Your task to perform on an android device: change the clock display to analog Image 0: 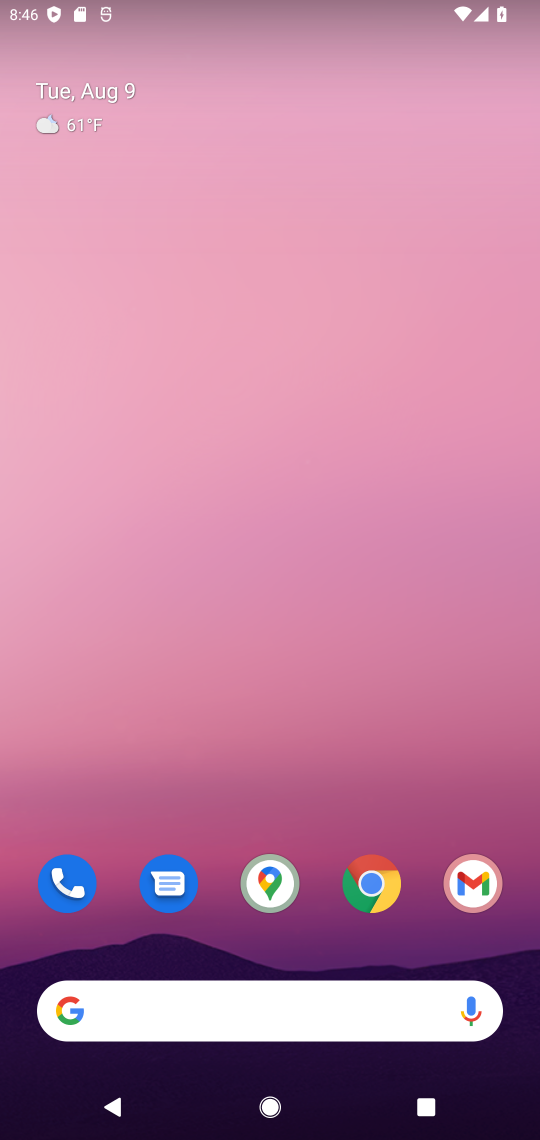
Step 0: drag from (368, 769) to (422, 0)
Your task to perform on an android device: change the clock display to analog Image 1: 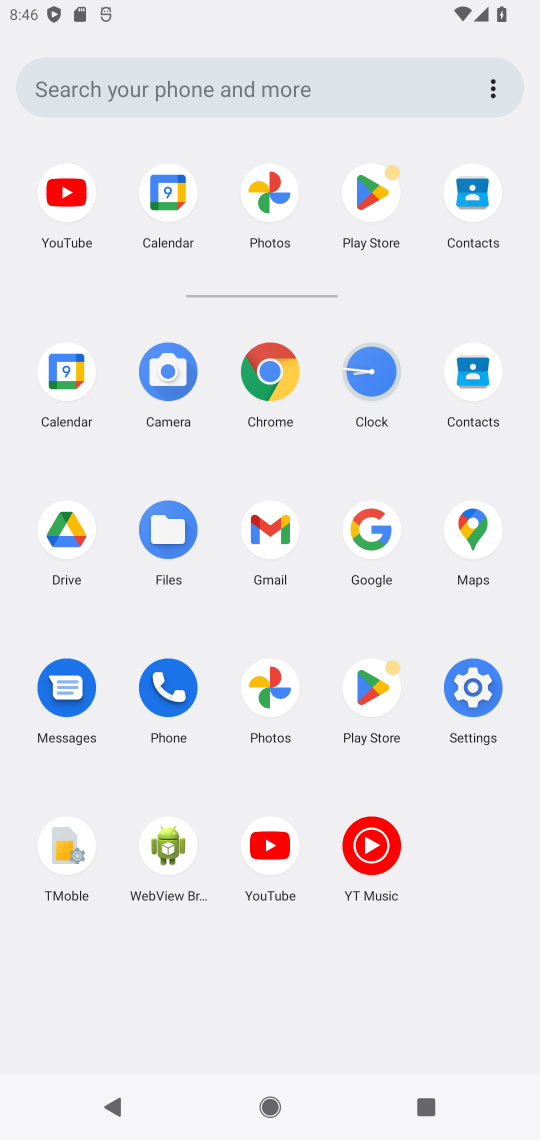
Step 1: click (367, 378)
Your task to perform on an android device: change the clock display to analog Image 2: 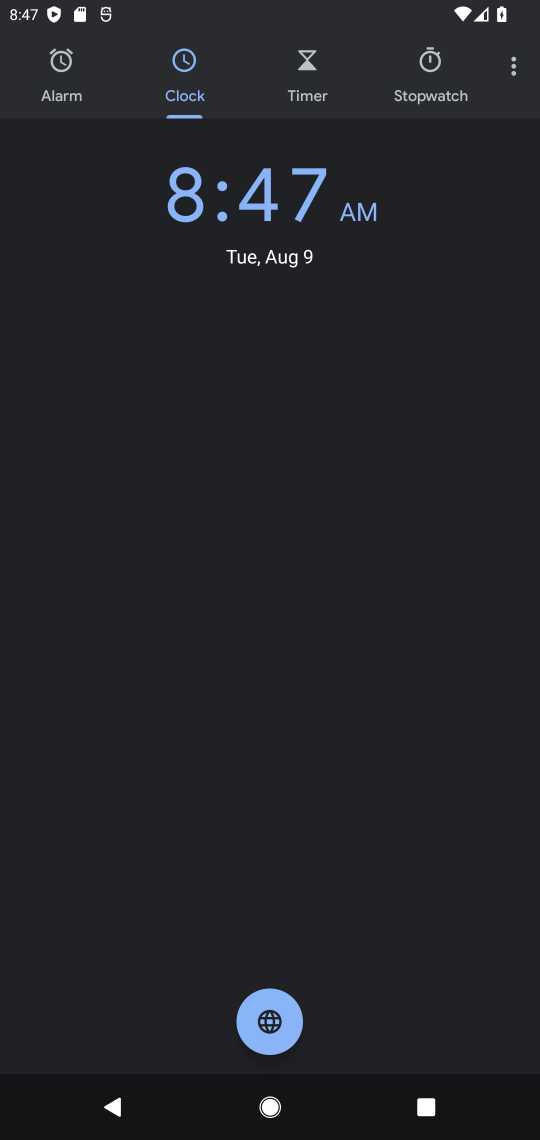
Step 2: click (511, 65)
Your task to perform on an android device: change the clock display to analog Image 3: 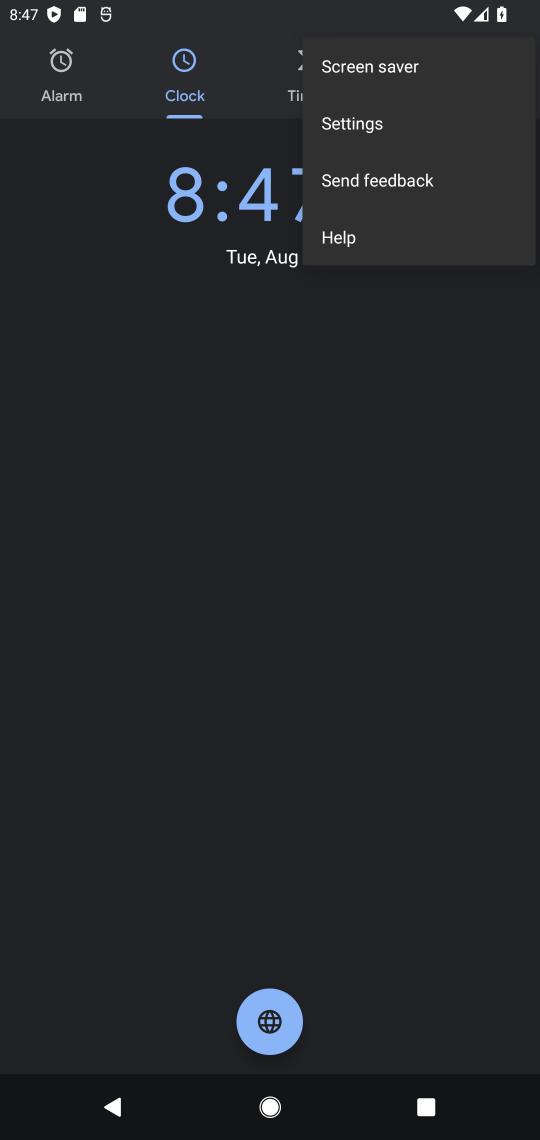
Step 3: click (388, 132)
Your task to perform on an android device: change the clock display to analog Image 4: 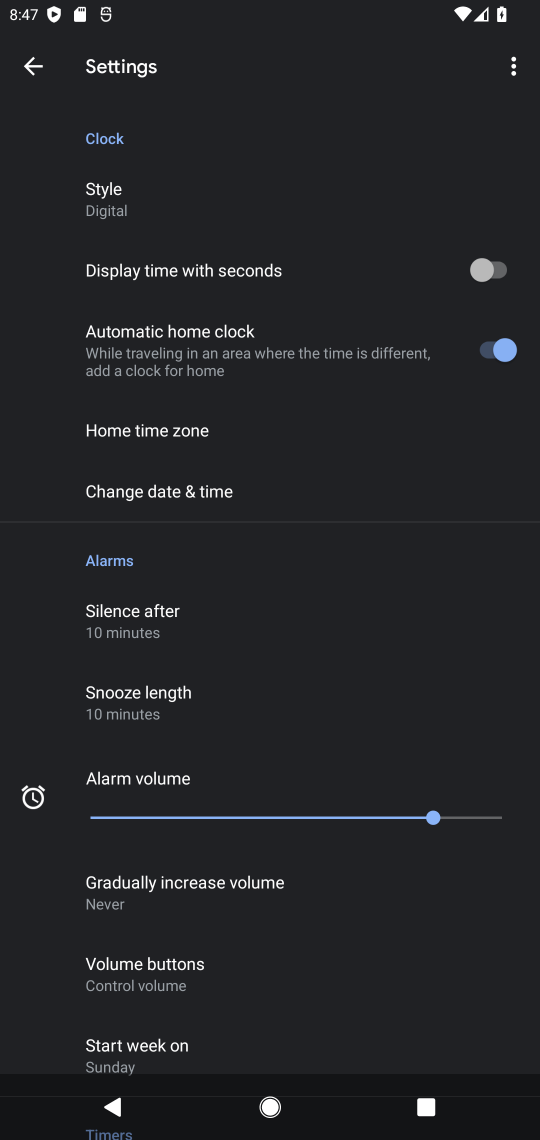
Step 4: click (112, 193)
Your task to perform on an android device: change the clock display to analog Image 5: 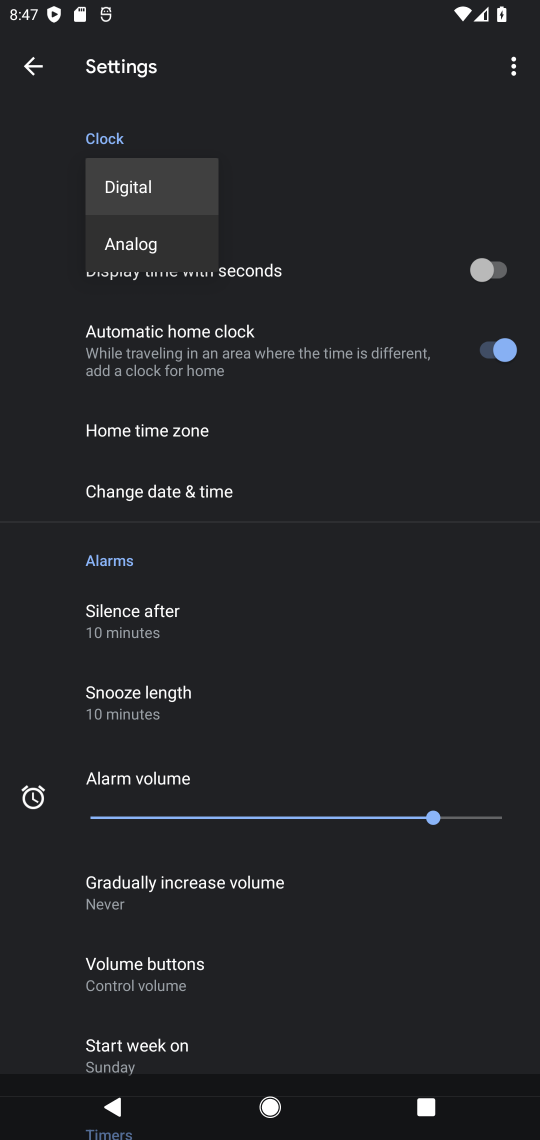
Step 5: click (141, 242)
Your task to perform on an android device: change the clock display to analog Image 6: 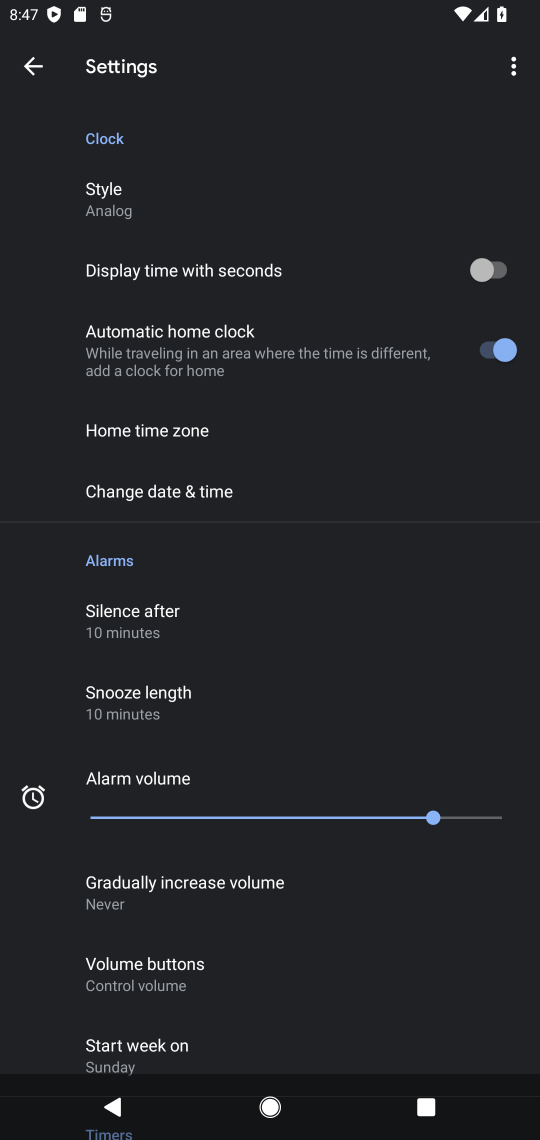
Step 6: task complete